Your task to perform on an android device: Show the shopping cart on bestbuy. Search for alienware area 51 on bestbuy, select the first entry, add it to the cart, then select checkout. Image 0: 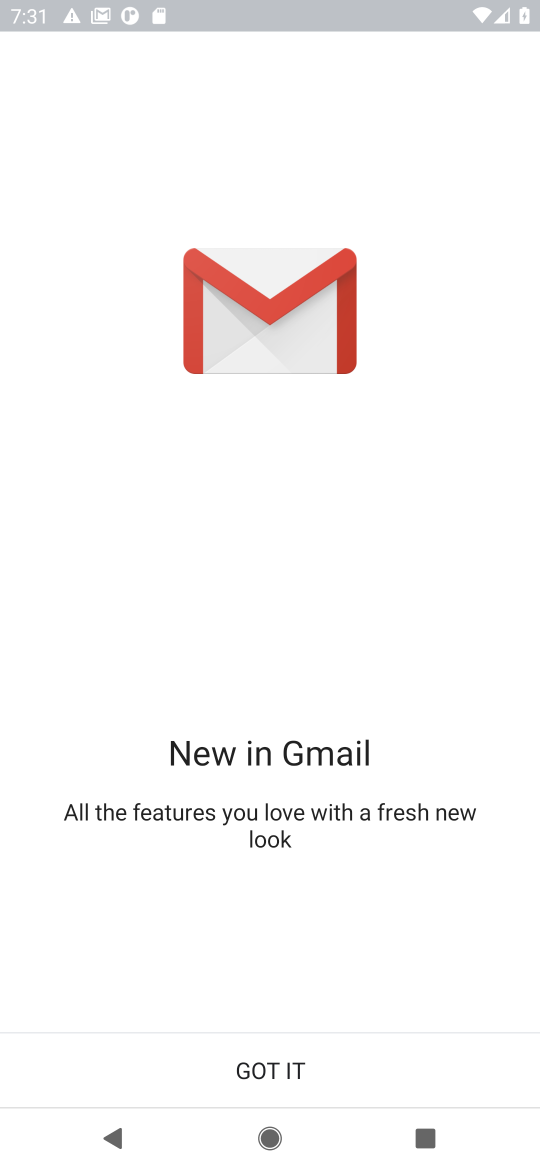
Step 0: press home button
Your task to perform on an android device: Show the shopping cart on bestbuy. Search for alienware area 51 on bestbuy, select the first entry, add it to the cart, then select checkout. Image 1: 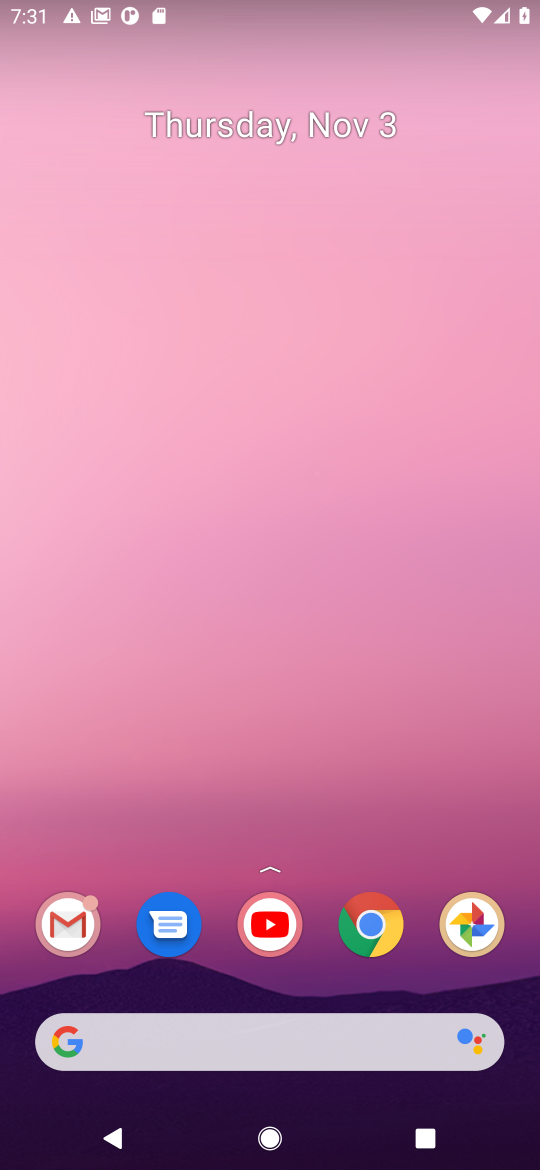
Step 1: click (235, 1031)
Your task to perform on an android device: Show the shopping cart on bestbuy. Search for alienware area 51 on bestbuy, select the first entry, add it to the cart, then select checkout. Image 2: 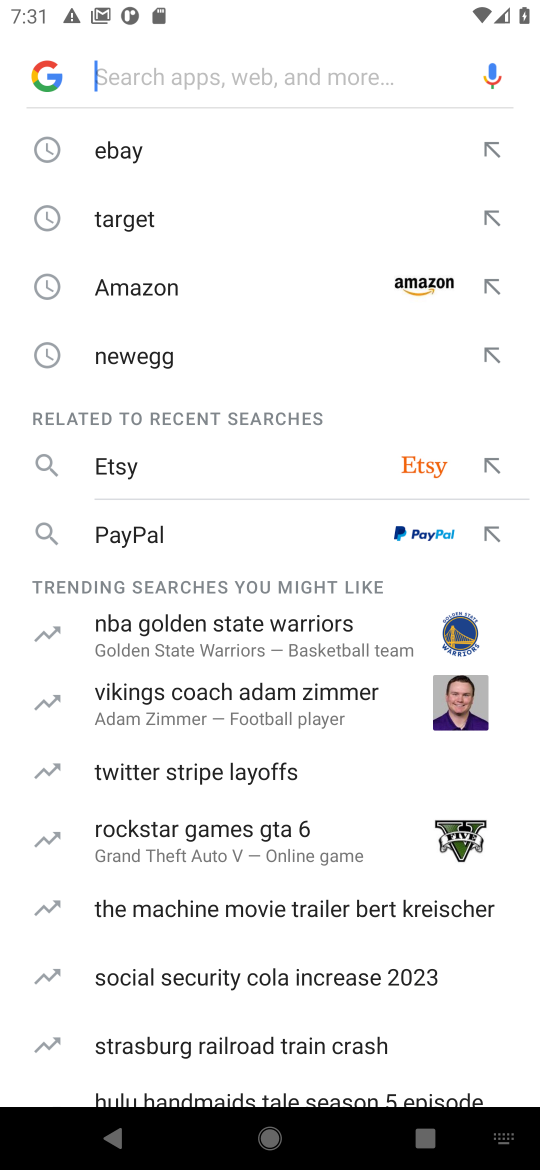
Step 2: type "bestbuy"
Your task to perform on an android device: Show the shopping cart on bestbuy. Search for alienware area 51 on bestbuy, select the first entry, add it to the cart, then select checkout. Image 3: 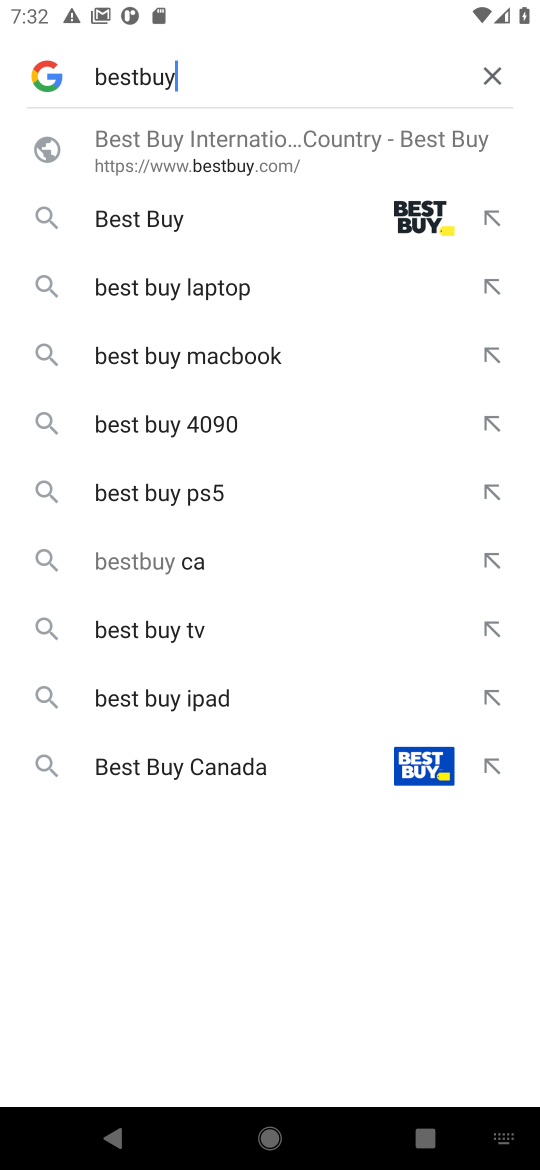
Step 3: click (158, 210)
Your task to perform on an android device: Show the shopping cart on bestbuy. Search for alienware area 51 on bestbuy, select the first entry, add it to the cart, then select checkout. Image 4: 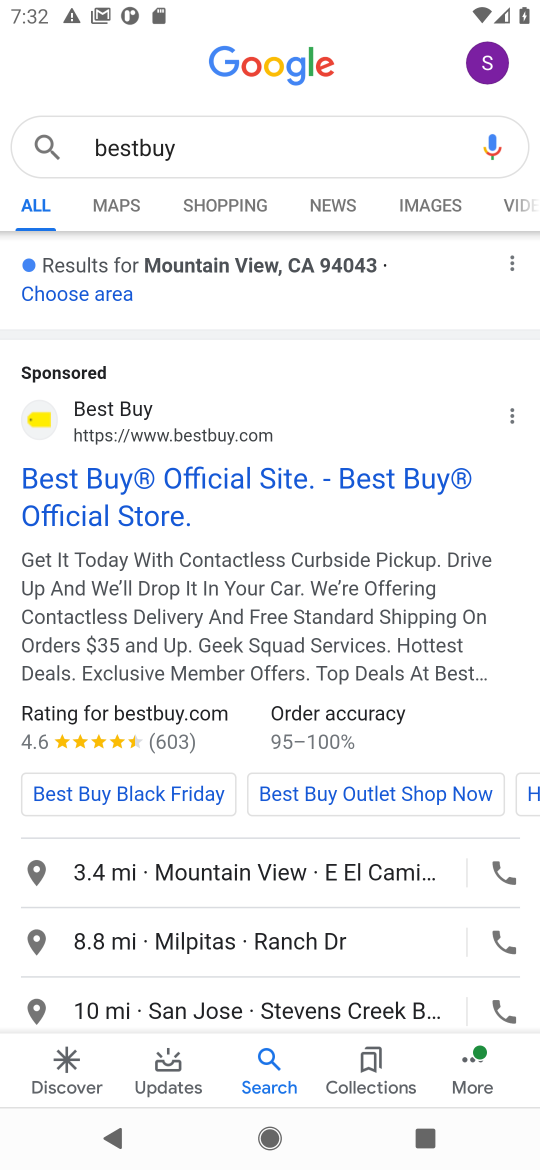
Step 4: click (117, 405)
Your task to perform on an android device: Show the shopping cart on bestbuy. Search for alienware area 51 on bestbuy, select the first entry, add it to the cart, then select checkout. Image 5: 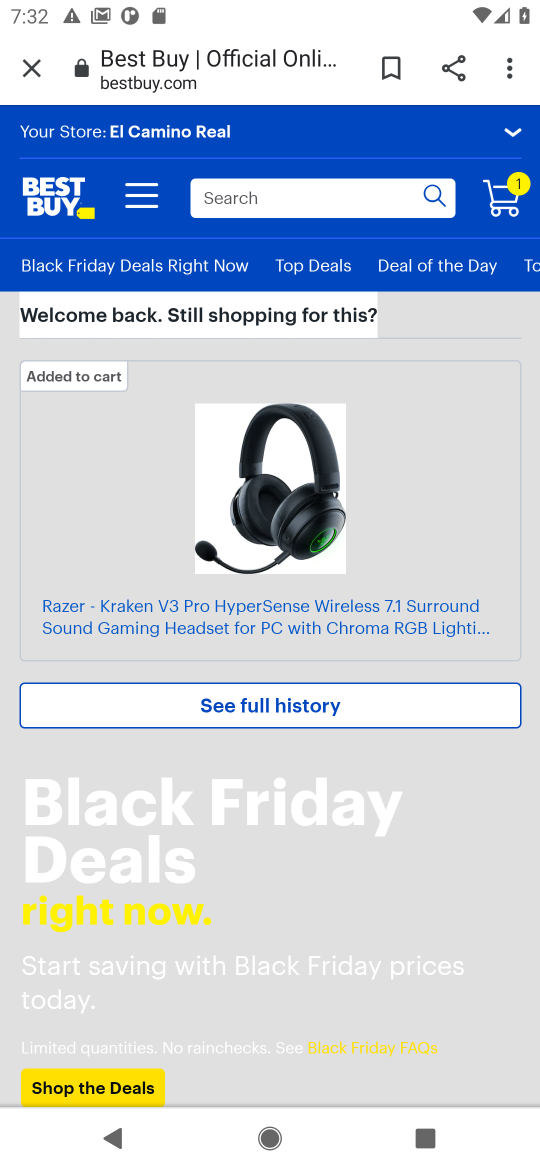
Step 5: click (270, 193)
Your task to perform on an android device: Show the shopping cart on bestbuy. Search for alienware area 51 on bestbuy, select the first entry, add it to the cart, then select checkout. Image 6: 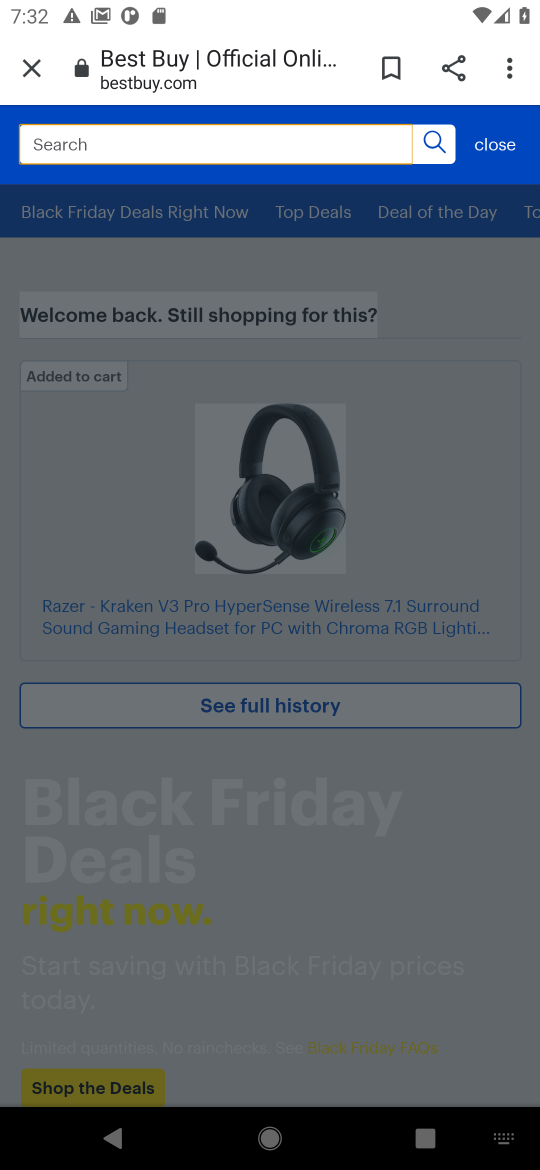
Step 6: type "alienware area 51"
Your task to perform on an android device: Show the shopping cart on bestbuy. Search for alienware area 51 on bestbuy, select the first entry, add it to the cart, then select checkout. Image 7: 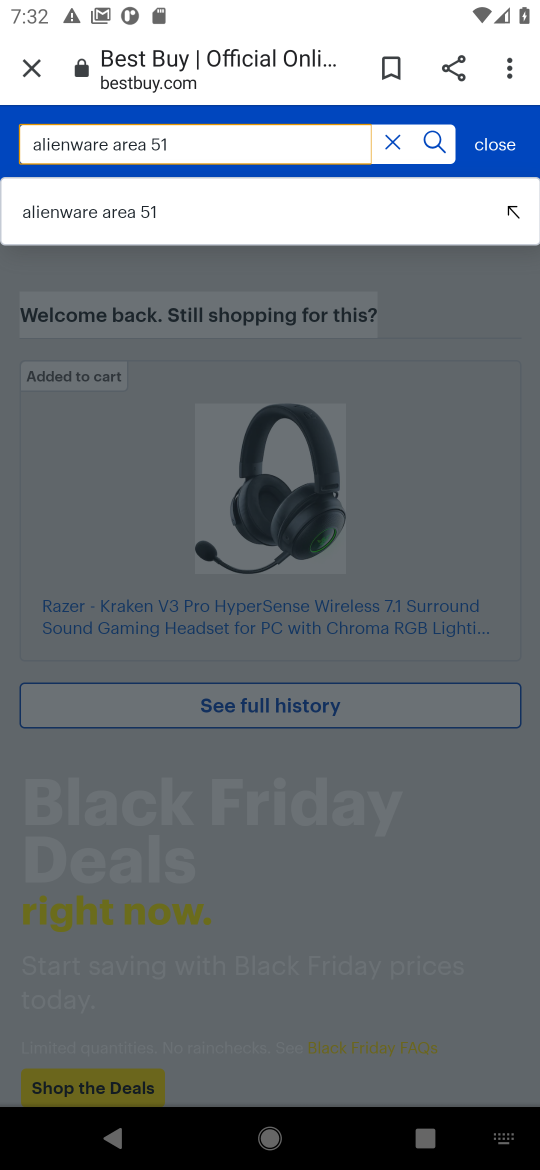
Step 7: click (150, 220)
Your task to perform on an android device: Show the shopping cart on bestbuy. Search for alienware area 51 on bestbuy, select the first entry, add it to the cart, then select checkout. Image 8: 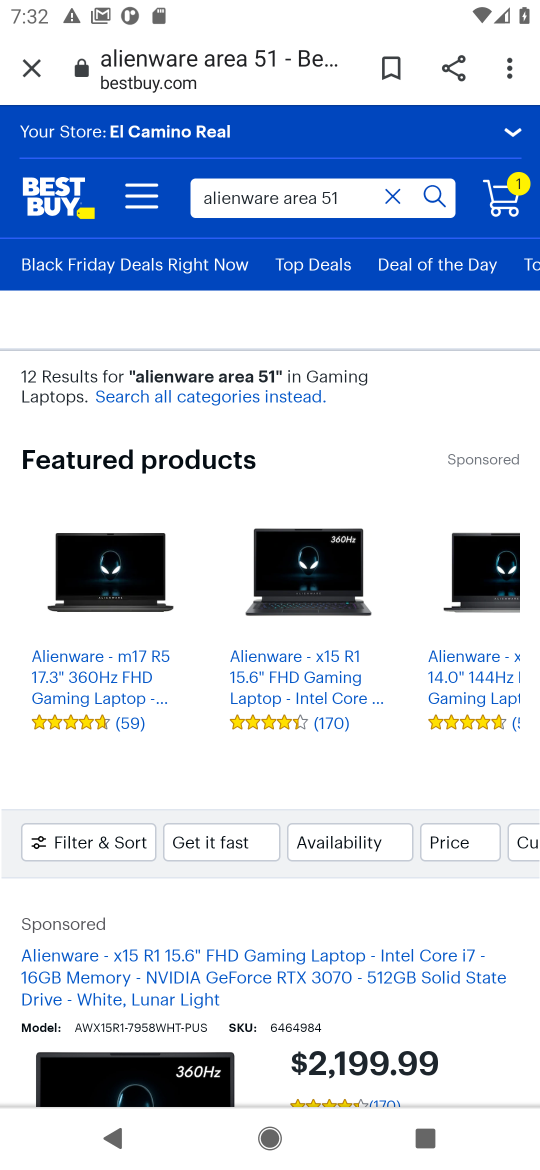
Step 8: drag from (344, 748) to (291, 482)
Your task to perform on an android device: Show the shopping cart on bestbuy. Search for alienware area 51 on bestbuy, select the first entry, add it to the cart, then select checkout. Image 9: 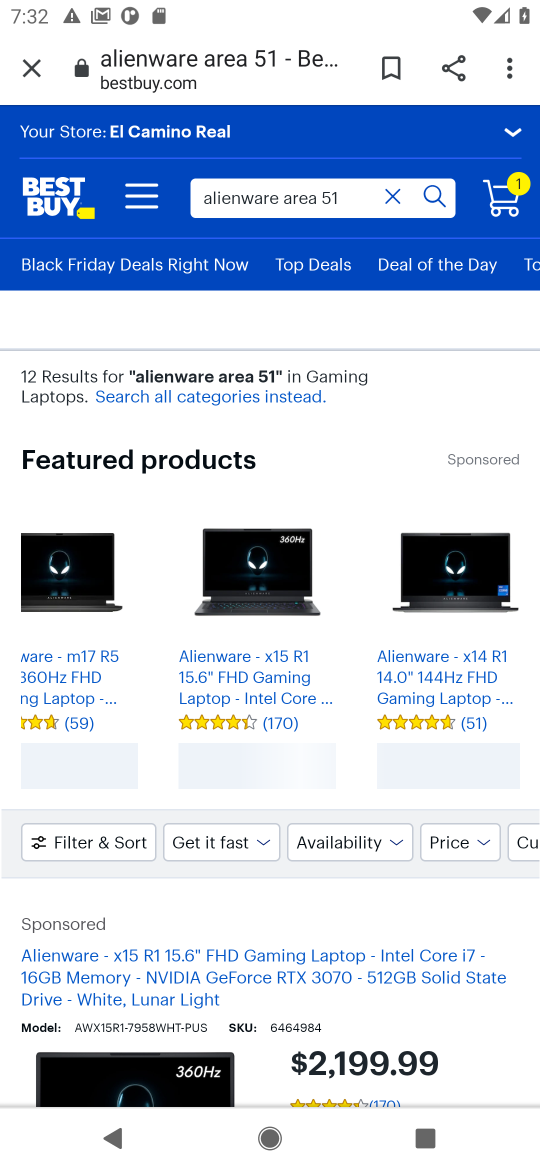
Step 9: drag from (378, 911) to (341, 648)
Your task to perform on an android device: Show the shopping cart on bestbuy. Search for alienware area 51 on bestbuy, select the first entry, add it to the cart, then select checkout. Image 10: 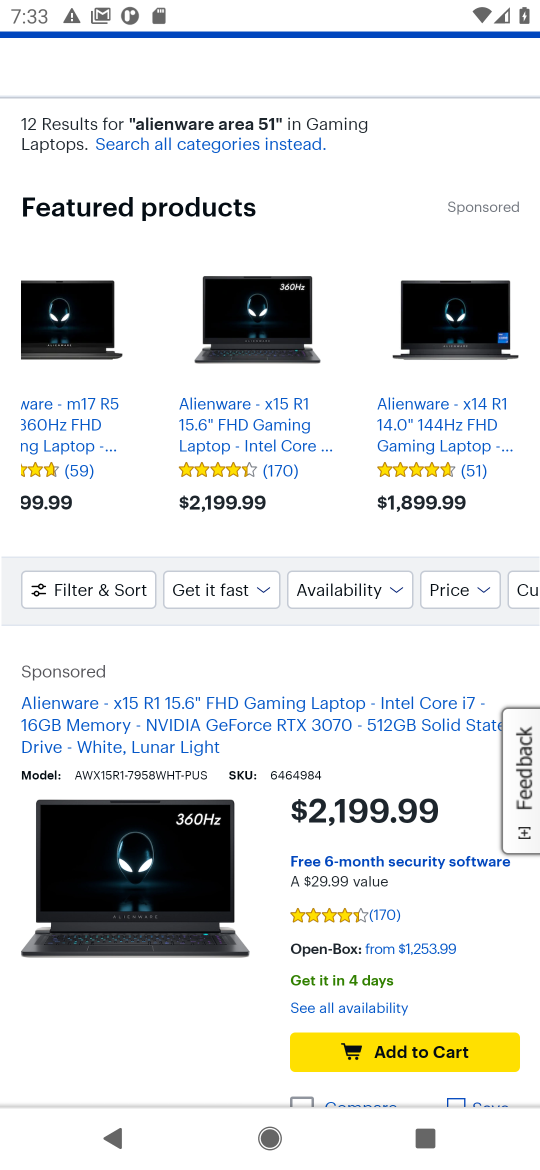
Step 10: drag from (221, 1030) to (197, 757)
Your task to perform on an android device: Show the shopping cart on bestbuy. Search for alienware area 51 on bestbuy, select the first entry, add it to the cart, then select checkout. Image 11: 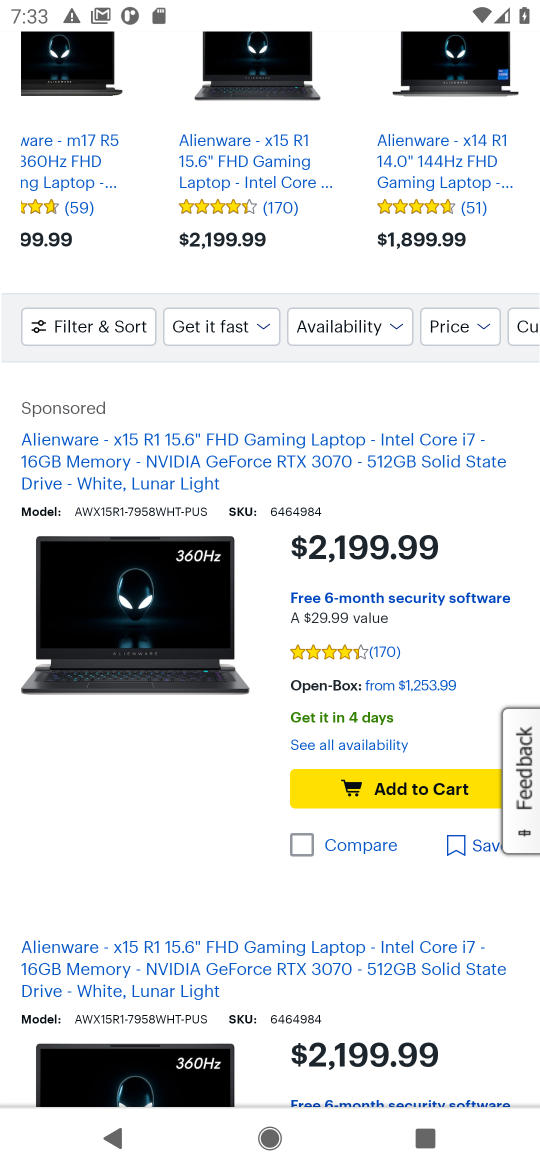
Step 11: click (365, 778)
Your task to perform on an android device: Show the shopping cart on bestbuy. Search for alienware area 51 on bestbuy, select the first entry, add it to the cart, then select checkout. Image 12: 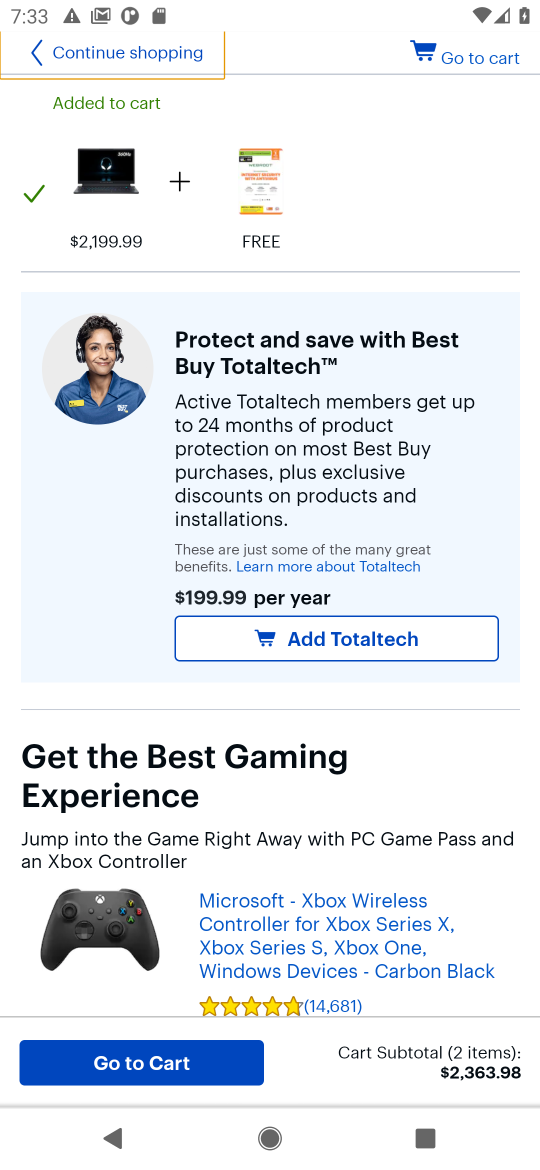
Step 12: click (155, 1067)
Your task to perform on an android device: Show the shopping cart on bestbuy. Search for alienware area 51 on bestbuy, select the first entry, add it to the cart, then select checkout. Image 13: 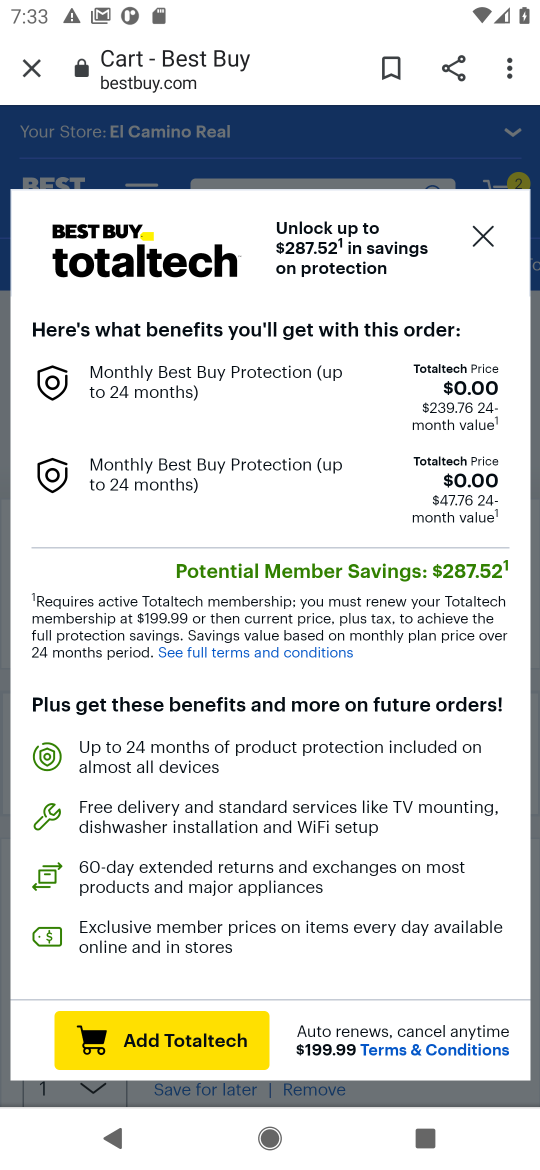
Step 13: click (479, 222)
Your task to perform on an android device: Show the shopping cart on bestbuy. Search for alienware area 51 on bestbuy, select the first entry, add it to the cart, then select checkout. Image 14: 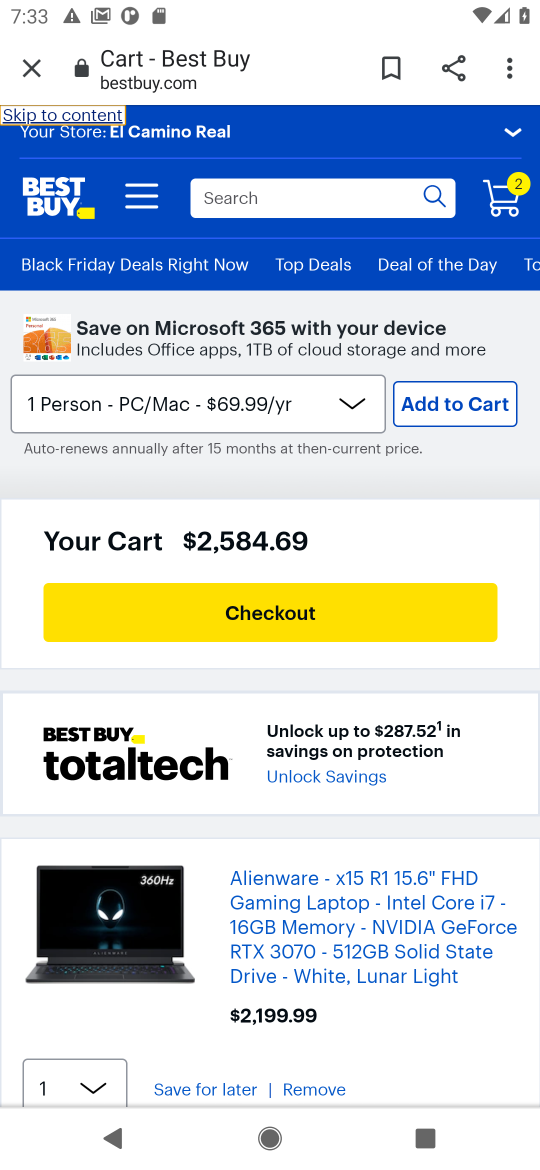
Step 14: click (335, 613)
Your task to perform on an android device: Show the shopping cart on bestbuy. Search for alienware area 51 on bestbuy, select the first entry, add it to the cart, then select checkout. Image 15: 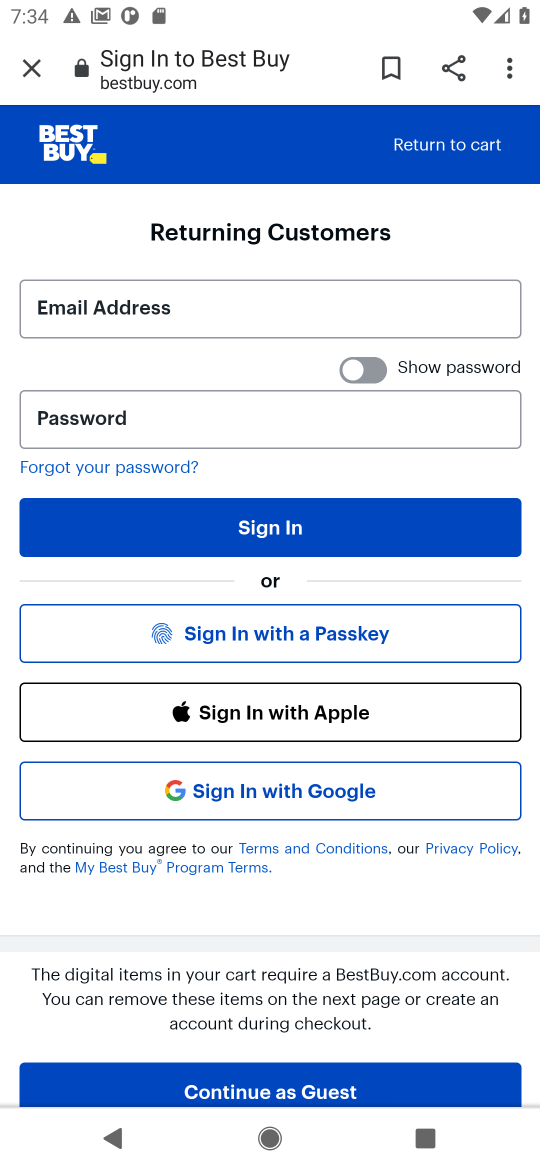
Step 15: task complete